Your task to perform on an android device: turn on bluetooth scan Image 0: 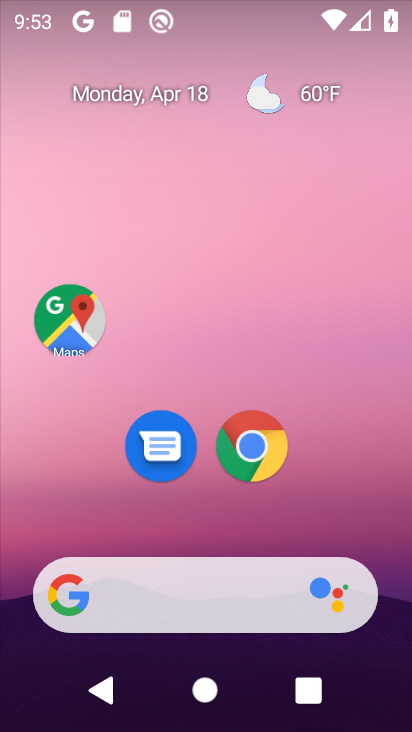
Step 0: drag from (391, 532) to (357, 68)
Your task to perform on an android device: turn on bluetooth scan Image 1: 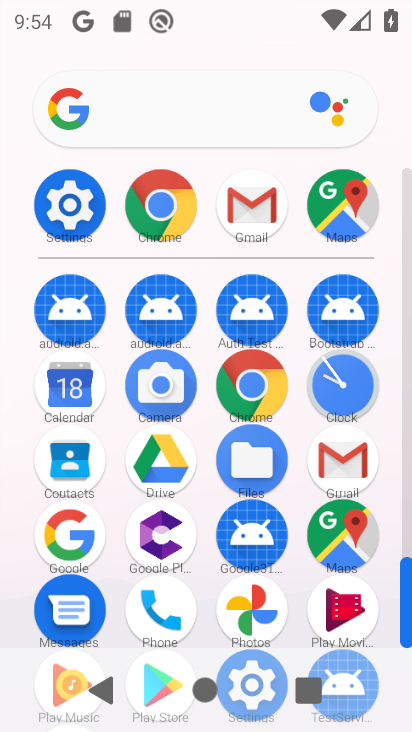
Step 1: click (65, 209)
Your task to perform on an android device: turn on bluetooth scan Image 2: 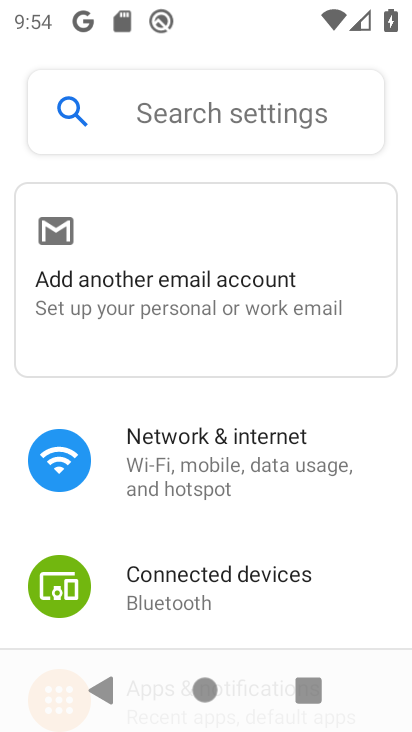
Step 2: drag from (376, 587) to (382, 360)
Your task to perform on an android device: turn on bluetooth scan Image 3: 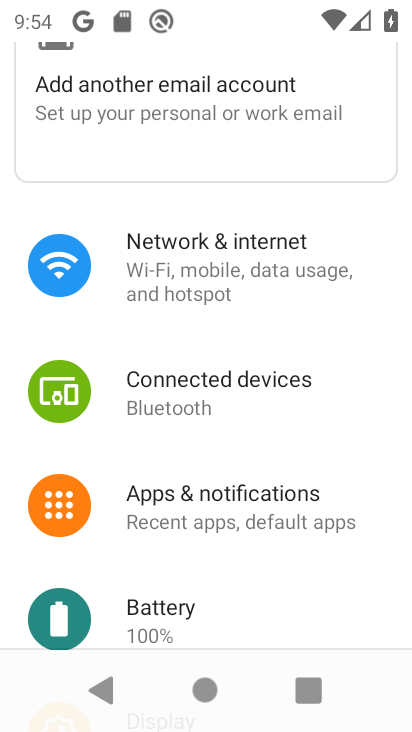
Step 3: drag from (372, 586) to (365, 361)
Your task to perform on an android device: turn on bluetooth scan Image 4: 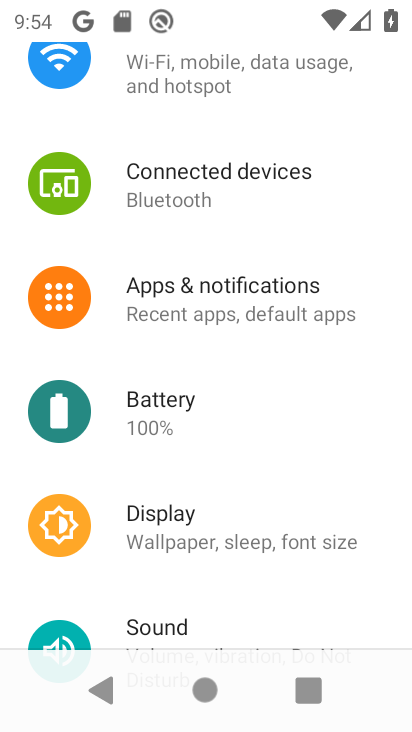
Step 4: drag from (372, 586) to (361, 364)
Your task to perform on an android device: turn on bluetooth scan Image 5: 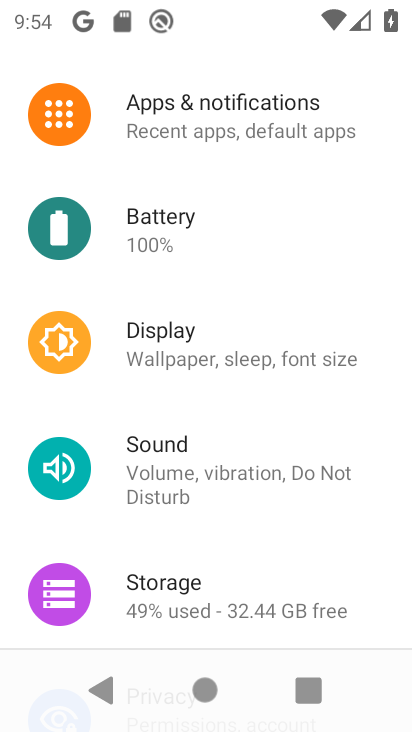
Step 5: drag from (379, 545) to (384, 259)
Your task to perform on an android device: turn on bluetooth scan Image 6: 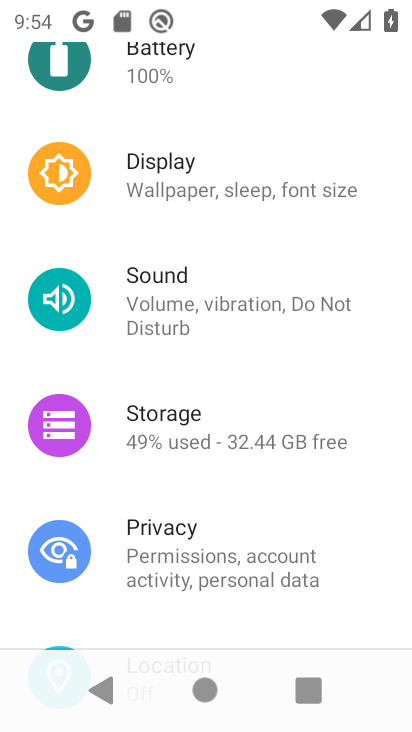
Step 6: drag from (366, 538) to (369, 402)
Your task to perform on an android device: turn on bluetooth scan Image 7: 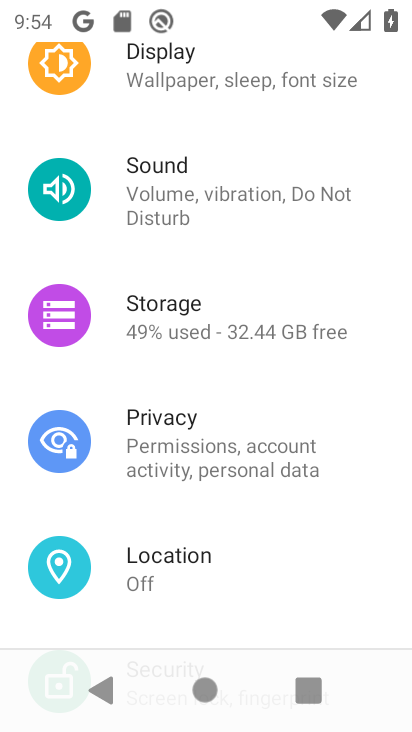
Step 7: click (174, 568)
Your task to perform on an android device: turn on bluetooth scan Image 8: 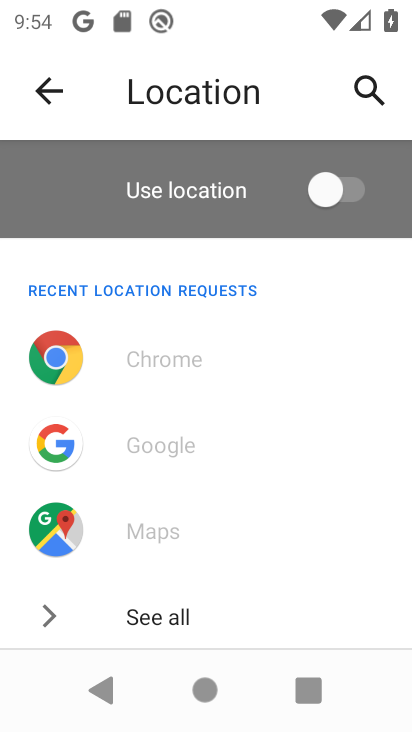
Step 8: drag from (337, 534) to (322, 283)
Your task to perform on an android device: turn on bluetooth scan Image 9: 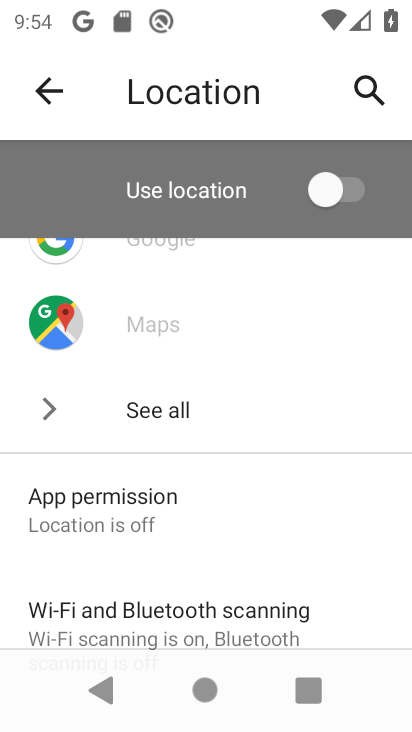
Step 9: drag from (336, 544) to (325, 311)
Your task to perform on an android device: turn on bluetooth scan Image 10: 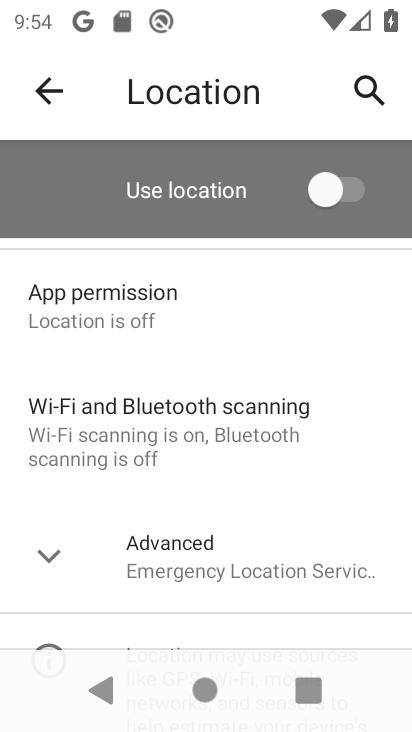
Step 10: click (226, 437)
Your task to perform on an android device: turn on bluetooth scan Image 11: 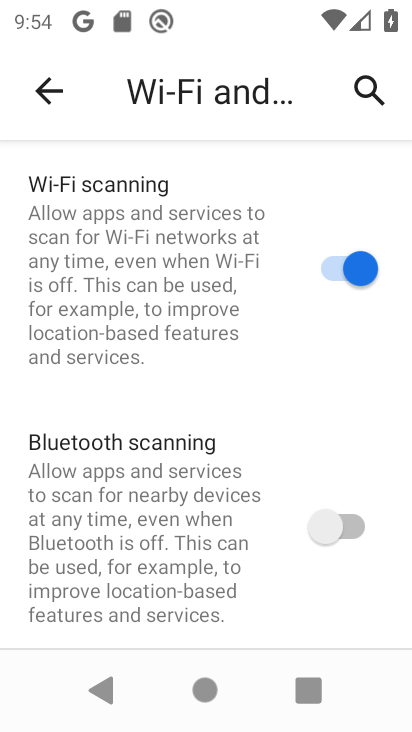
Step 11: click (326, 529)
Your task to perform on an android device: turn on bluetooth scan Image 12: 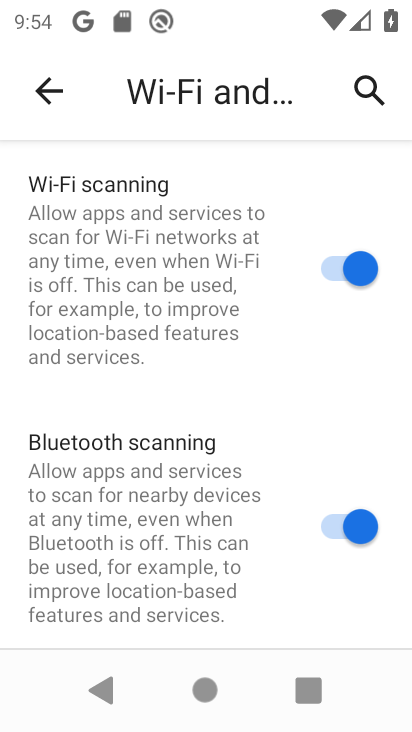
Step 12: task complete